Your task to perform on an android device: Is it going to rain today? Image 0: 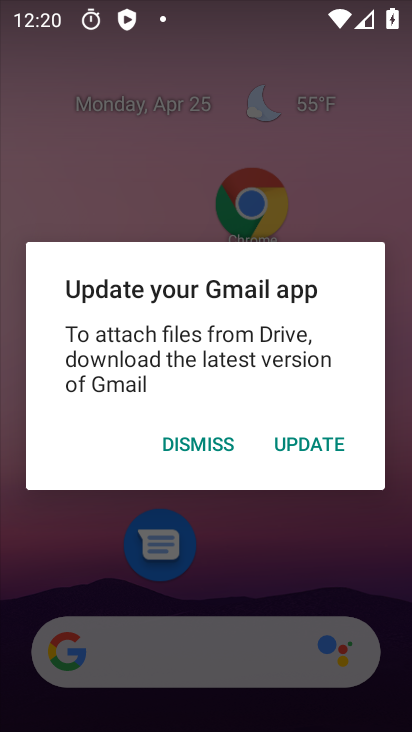
Step 0: press home button
Your task to perform on an android device: Is it going to rain today? Image 1: 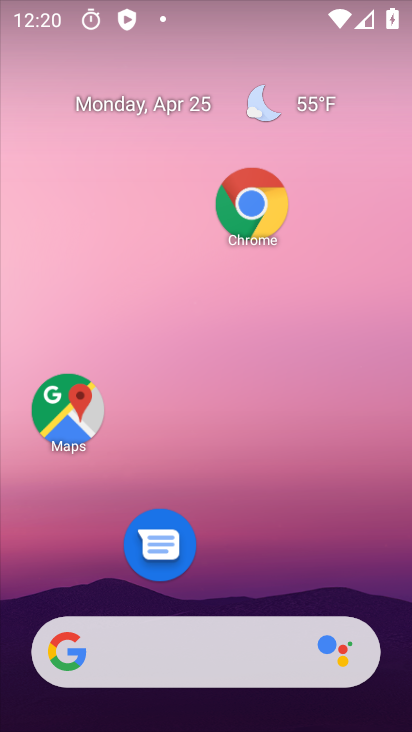
Step 1: drag from (249, 691) to (372, 195)
Your task to perform on an android device: Is it going to rain today? Image 2: 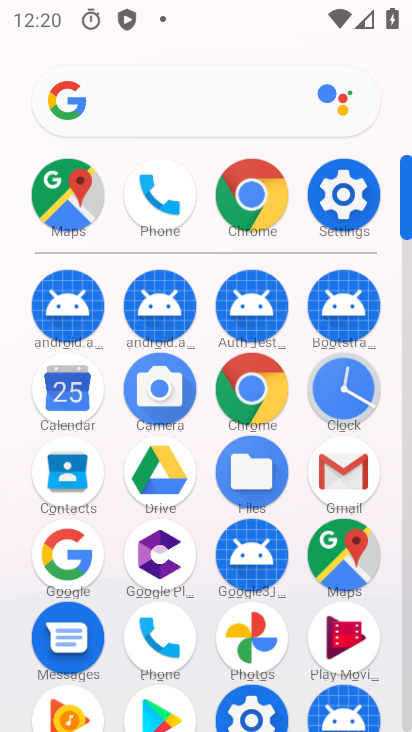
Step 2: click (184, 101)
Your task to perform on an android device: Is it going to rain today? Image 3: 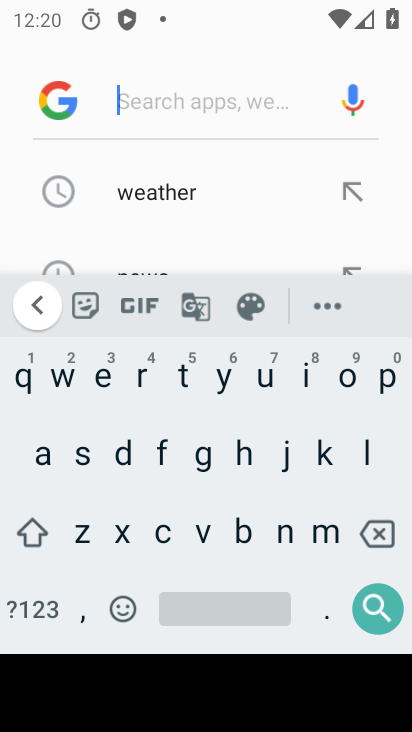
Step 3: click (144, 186)
Your task to perform on an android device: Is it going to rain today? Image 4: 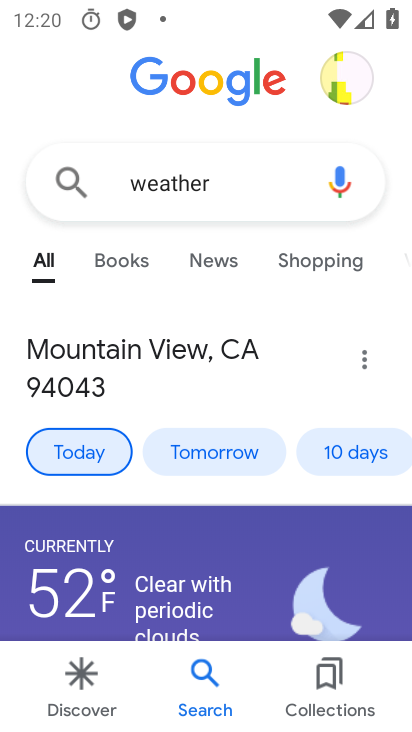
Step 4: click (101, 441)
Your task to perform on an android device: Is it going to rain today? Image 5: 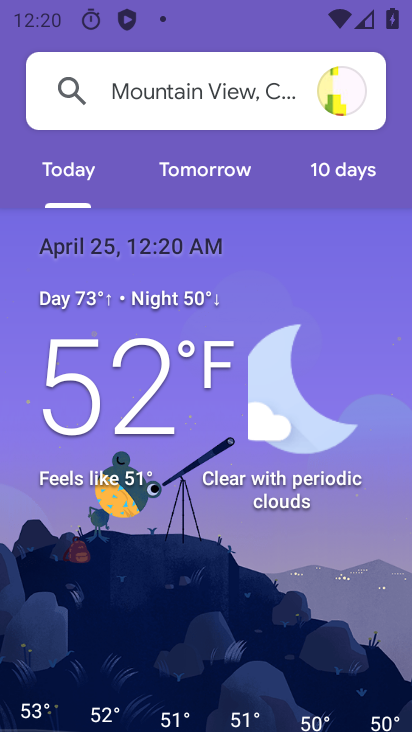
Step 5: task complete